Your task to perform on an android device: View the shopping cart on ebay.com. Add "duracell triple a" to the cart on ebay.com, then select checkout. Image 0: 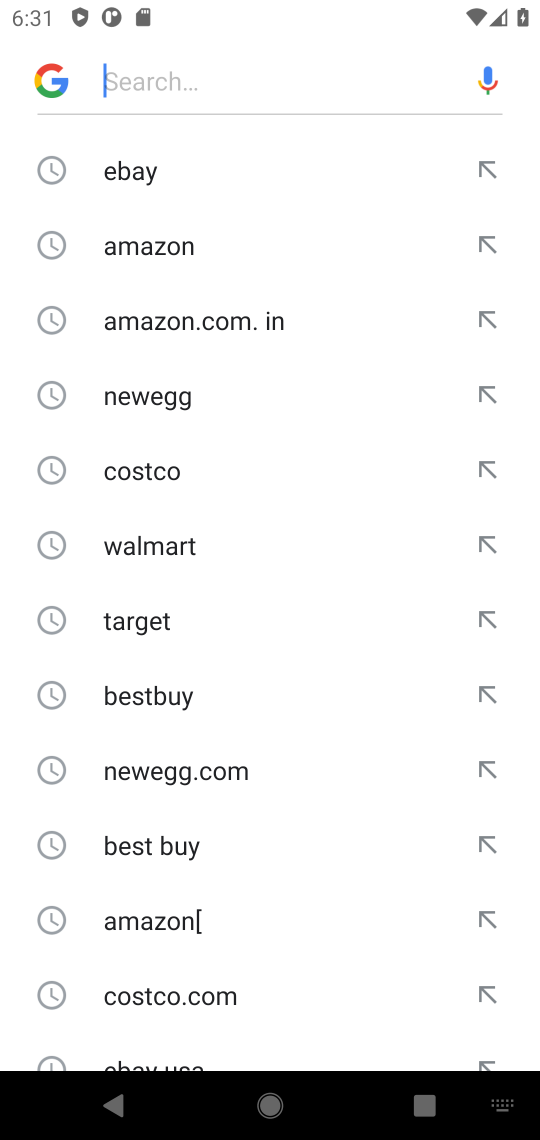
Step 0: click (142, 147)
Your task to perform on an android device: View the shopping cart on ebay.com. Add "duracell triple a" to the cart on ebay.com, then select checkout. Image 1: 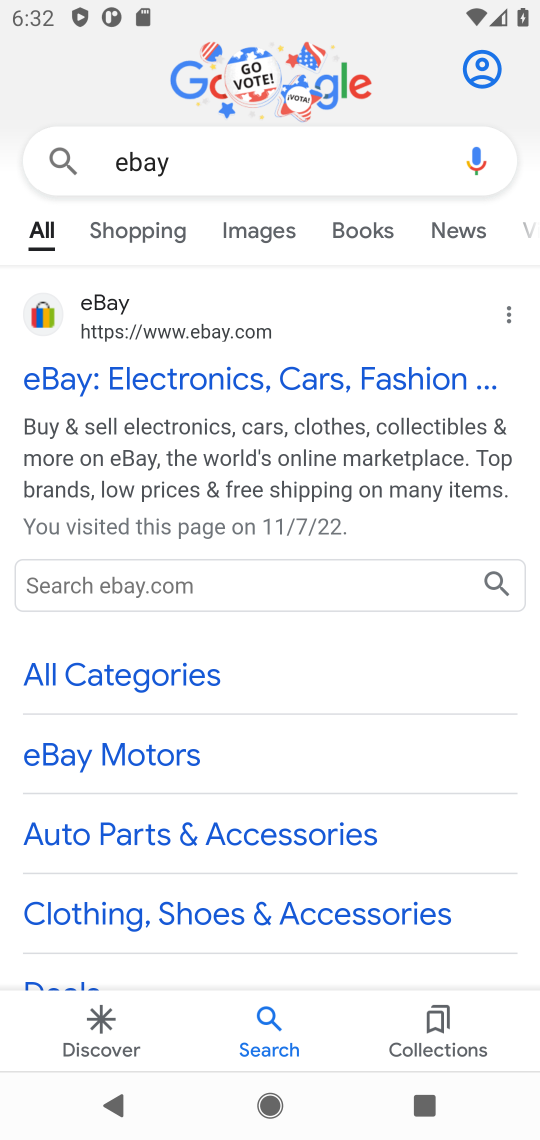
Step 1: click (40, 317)
Your task to perform on an android device: View the shopping cart on ebay.com. Add "duracell triple a" to the cart on ebay.com, then select checkout. Image 2: 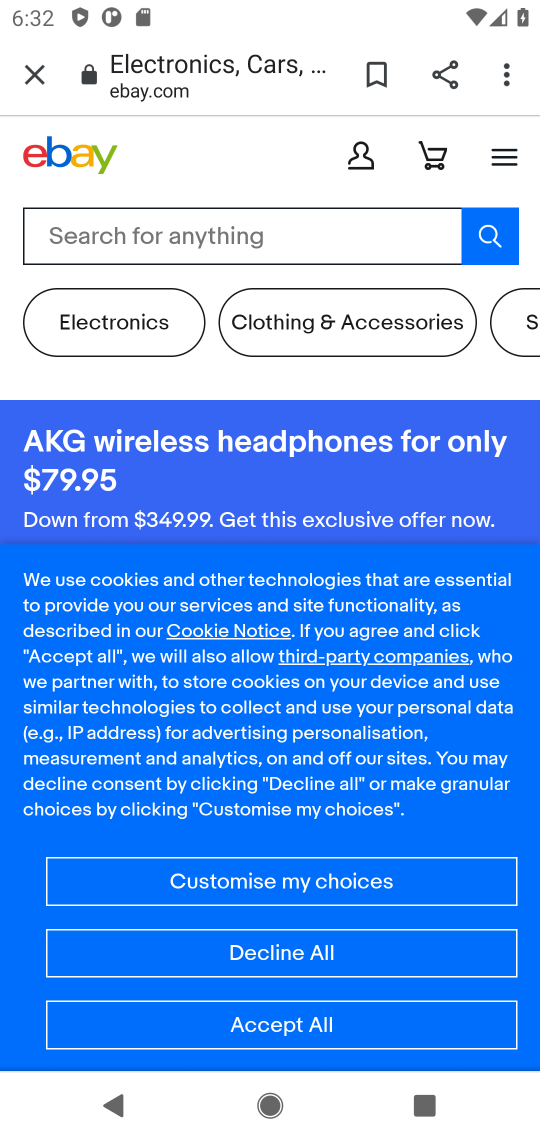
Step 2: click (307, 1018)
Your task to perform on an android device: View the shopping cart on ebay.com. Add "duracell triple a" to the cart on ebay.com, then select checkout. Image 3: 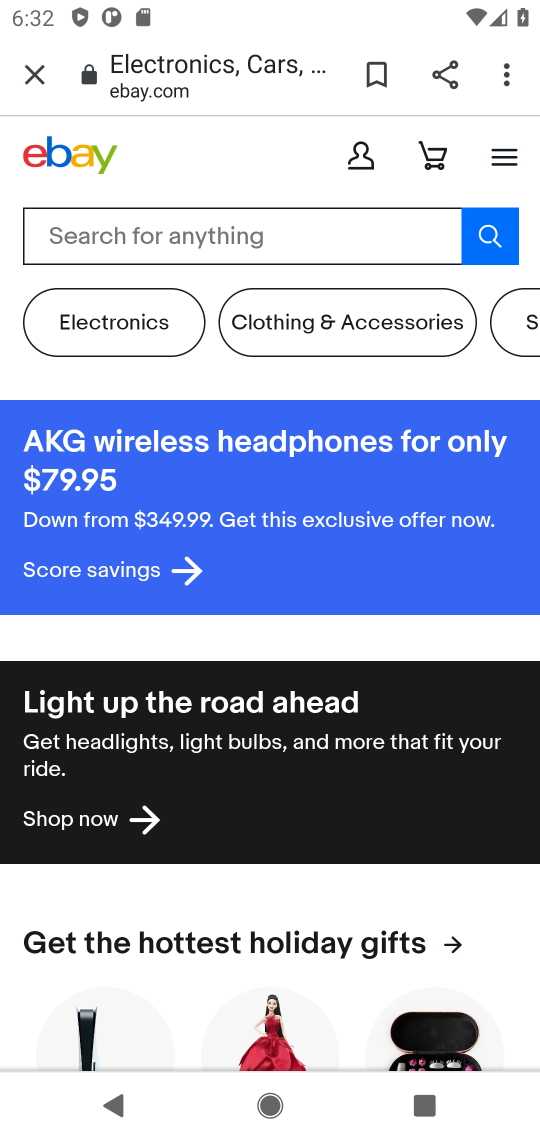
Step 3: click (424, 154)
Your task to perform on an android device: View the shopping cart on ebay.com. Add "duracell triple a" to the cart on ebay.com, then select checkout. Image 4: 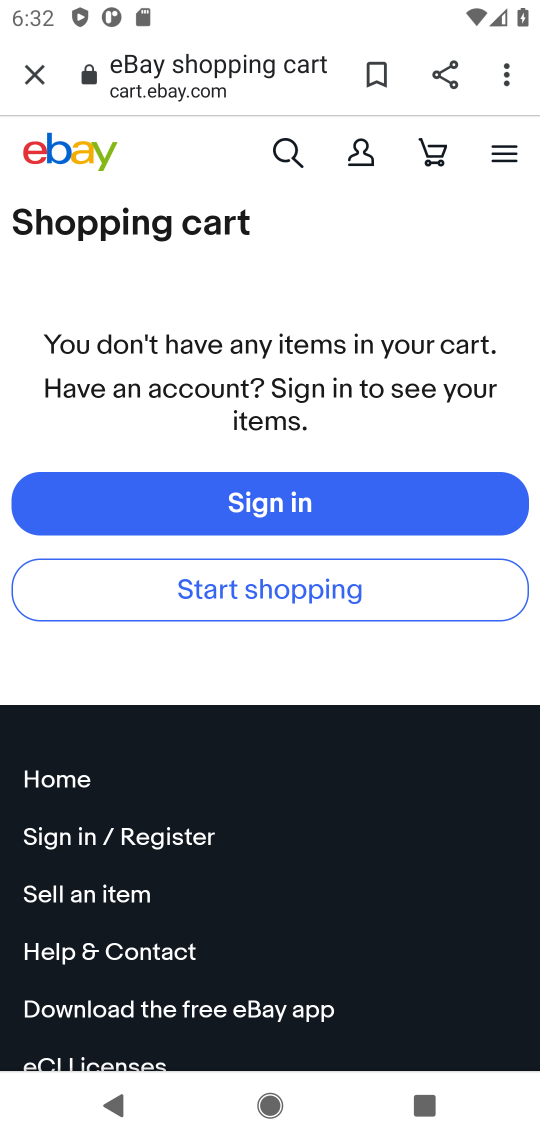
Step 4: press back button
Your task to perform on an android device: View the shopping cart on ebay.com. Add "duracell triple a" to the cart on ebay.com, then select checkout. Image 5: 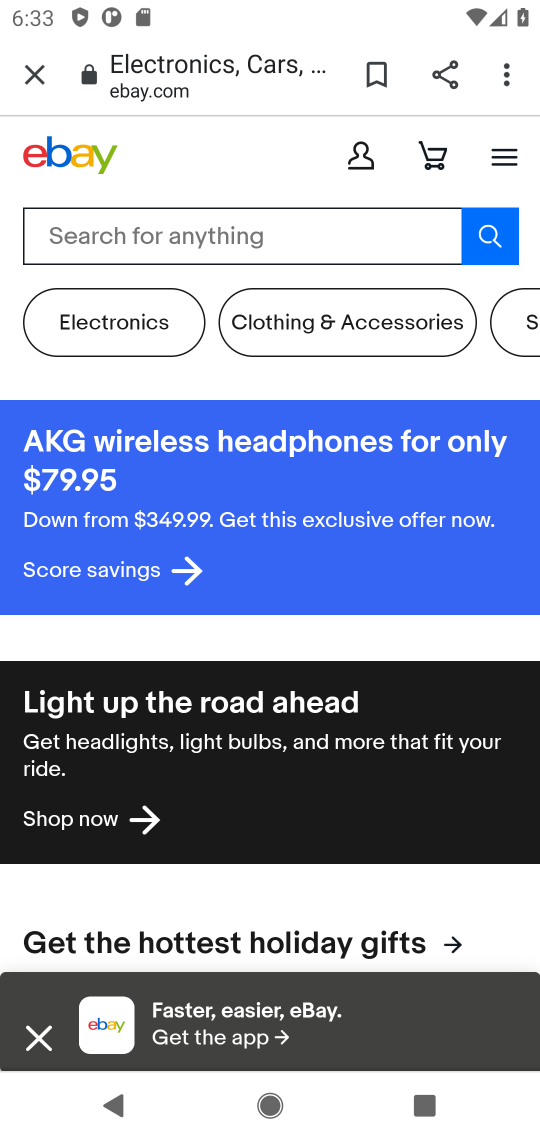
Step 5: click (290, 209)
Your task to perform on an android device: View the shopping cart on ebay.com. Add "duracell triple a" to the cart on ebay.com, then select checkout. Image 6: 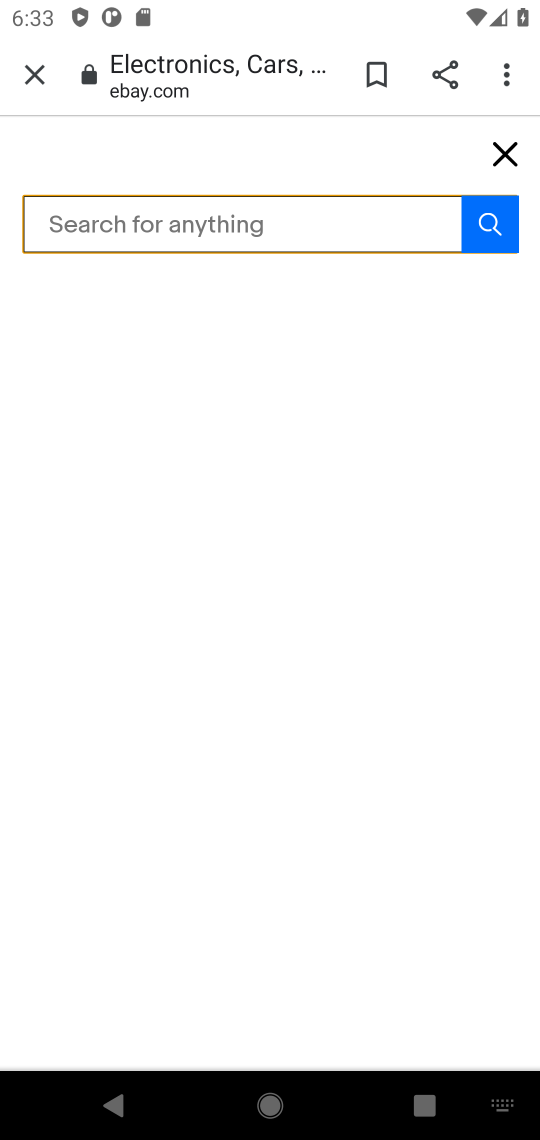
Step 6: type "duracell "
Your task to perform on an android device: View the shopping cart on ebay.com. Add "duracell triple a" to the cart on ebay.com, then select checkout. Image 7: 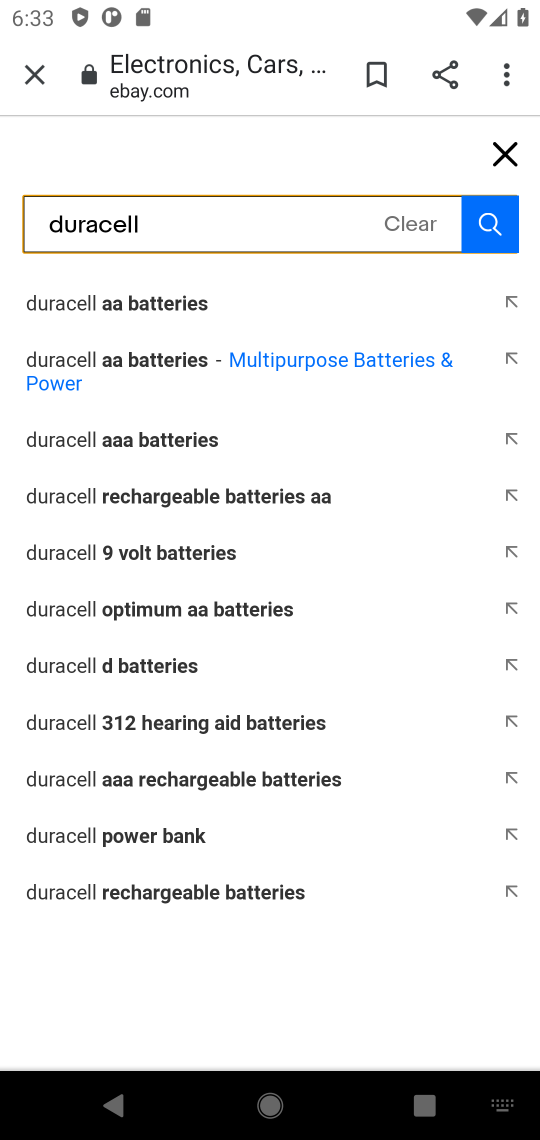
Step 7: click (146, 295)
Your task to perform on an android device: View the shopping cart on ebay.com. Add "duracell triple a" to the cart on ebay.com, then select checkout. Image 8: 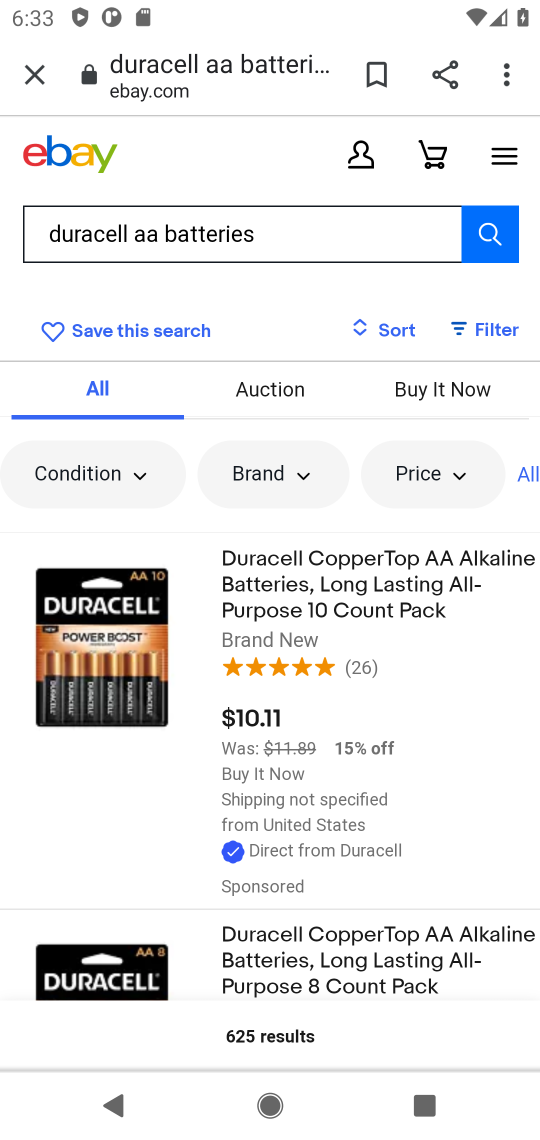
Step 8: click (263, 596)
Your task to perform on an android device: View the shopping cart on ebay.com. Add "duracell triple a" to the cart on ebay.com, then select checkout. Image 9: 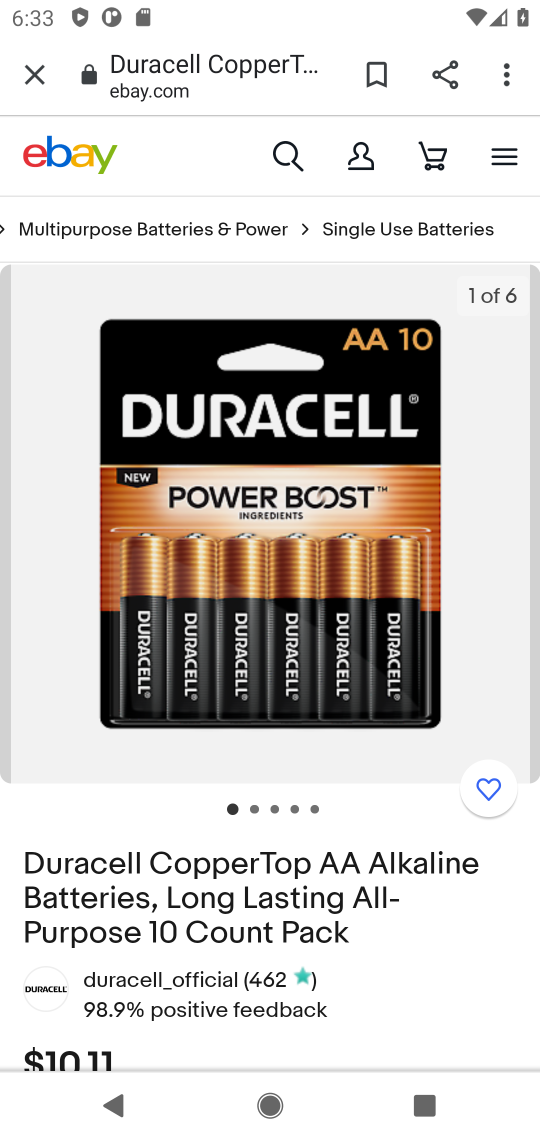
Step 9: drag from (238, 1072) to (422, 171)
Your task to perform on an android device: View the shopping cart on ebay.com. Add "duracell triple a" to the cart on ebay.com, then select checkout. Image 10: 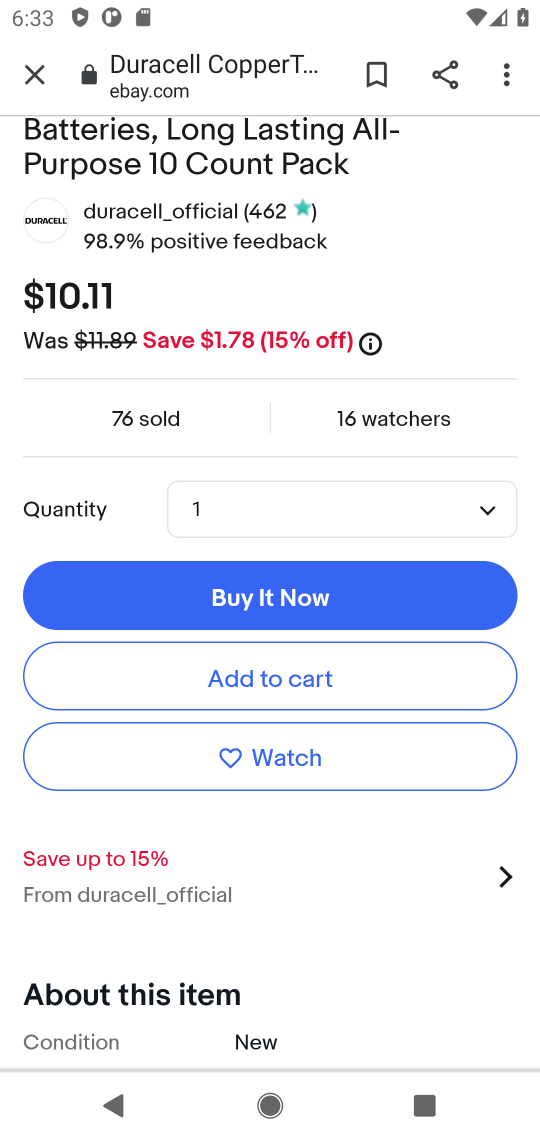
Step 10: click (290, 679)
Your task to perform on an android device: View the shopping cart on ebay.com. Add "duracell triple a" to the cart on ebay.com, then select checkout. Image 11: 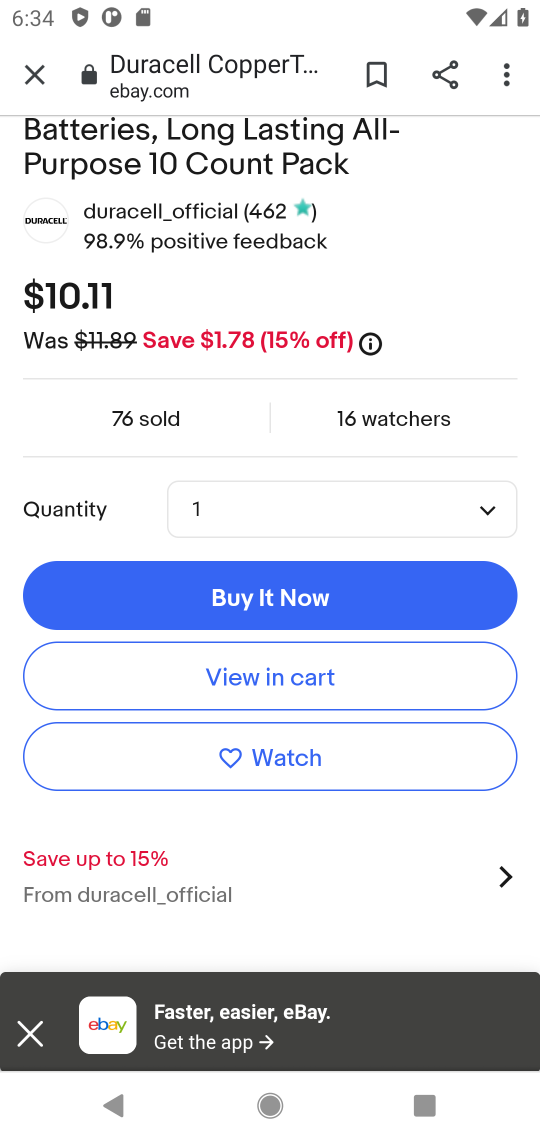
Step 11: task complete